Your task to perform on an android device: check google app version Image 0: 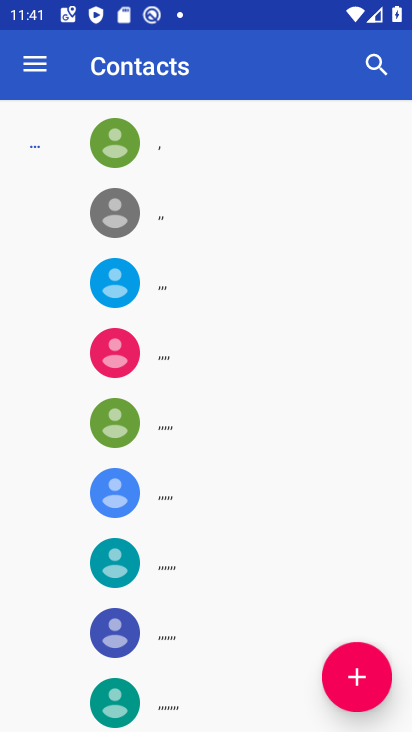
Step 0: press home button
Your task to perform on an android device: check google app version Image 1: 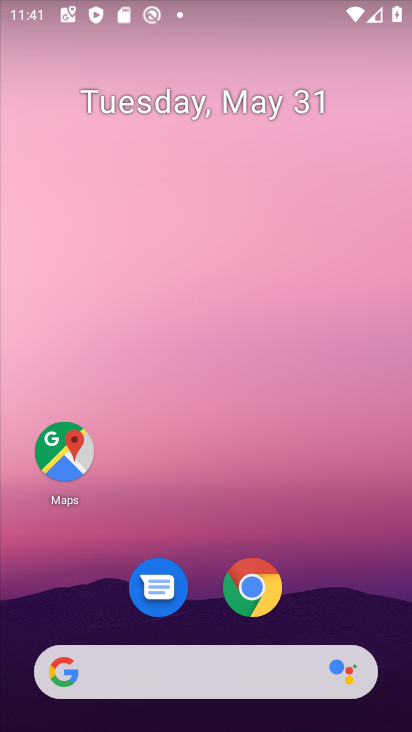
Step 1: drag from (362, 536) to (285, 204)
Your task to perform on an android device: check google app version Image 2: 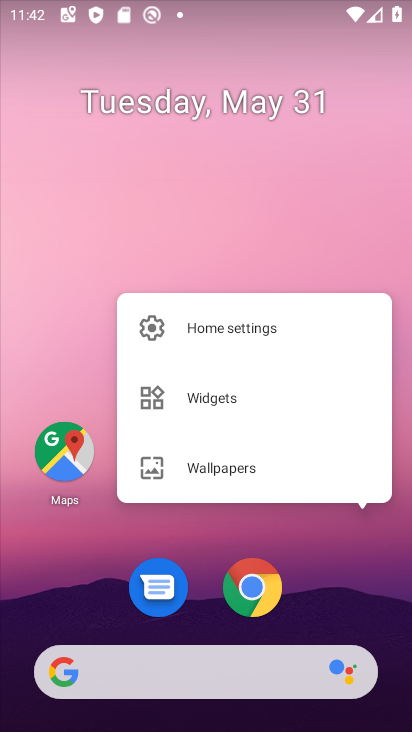
Step 2: drag from (289, 254) to (279, 0)
Your task to perform on an android device: check google app version Image 3: 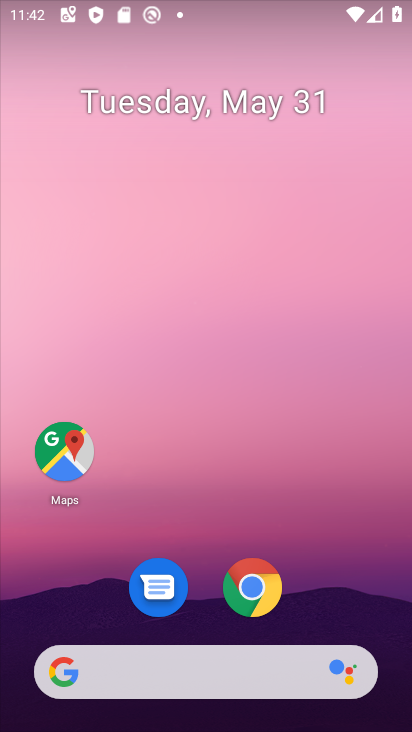
Step 3: drag from (225, 535) to (266, 107)
Your task to perform on an android device: check google app version Image 4: 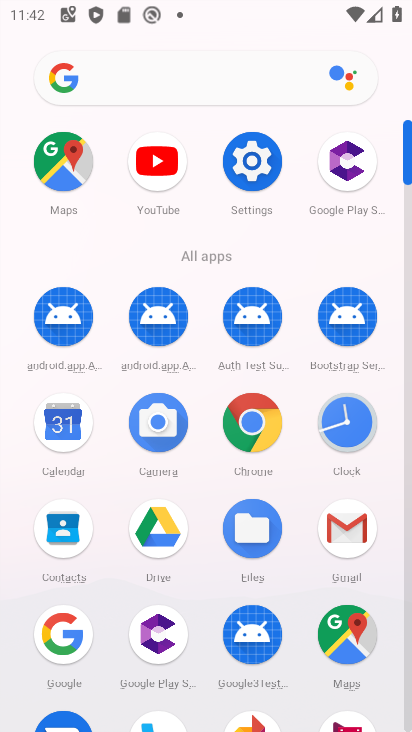
Step 4: click (68, 630)
Your task to perform on an android device: check google app version Image 5: 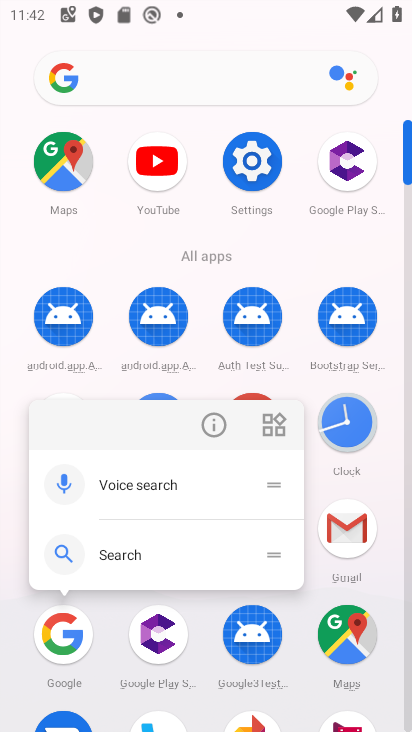
Step 5: click (206, 413)
Your task to perform on an android device: check google app version Image 6: 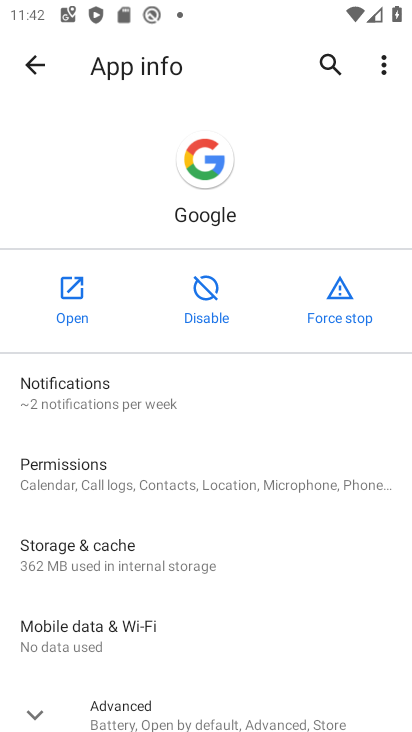
Step 6: drag from (238, 646) to (299, 354)
Your task to perform on an android device: check google app version Image 7: 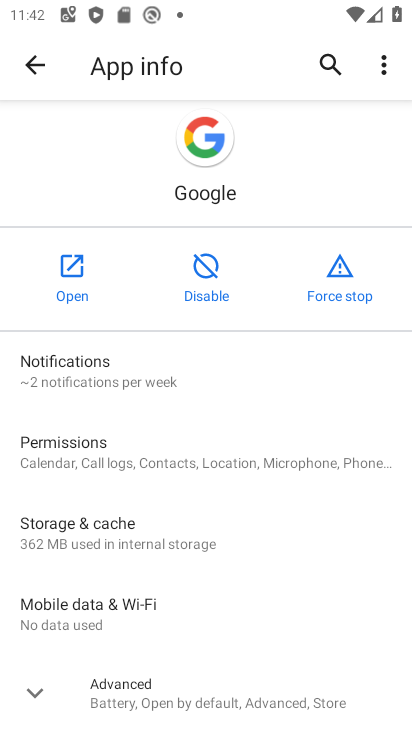
Step 7: click (183, 707)
Your task to perform on an android device: check google app version Image 8: 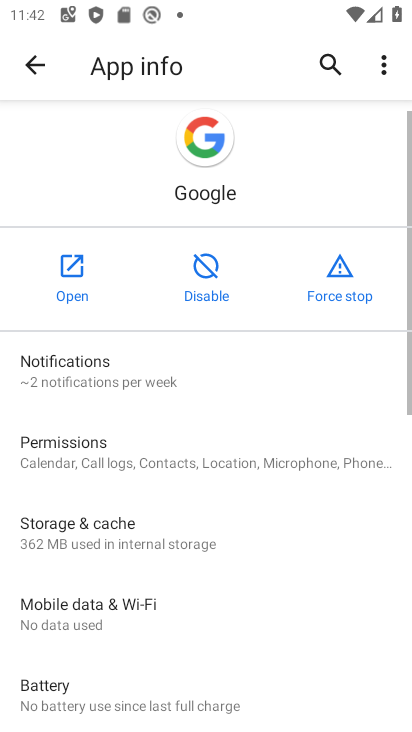
Step 8: task complete